Your task to perform on an android device: Open Google Maps and go to "Timeline" Image 0: 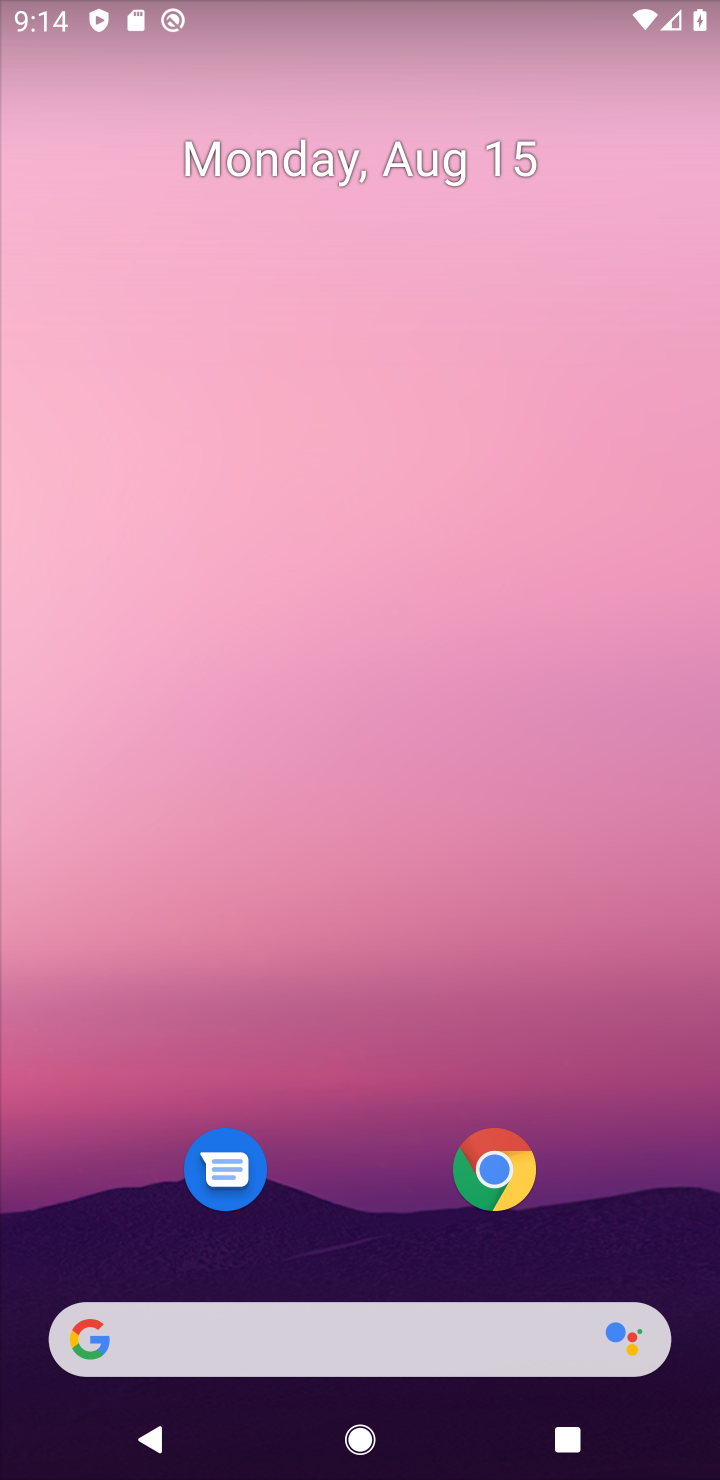
Step 0: drag from (336, 697) to (355, 141)
Your task to perform on an android device: Open Google Maps and go to "Timeline" Image 1: 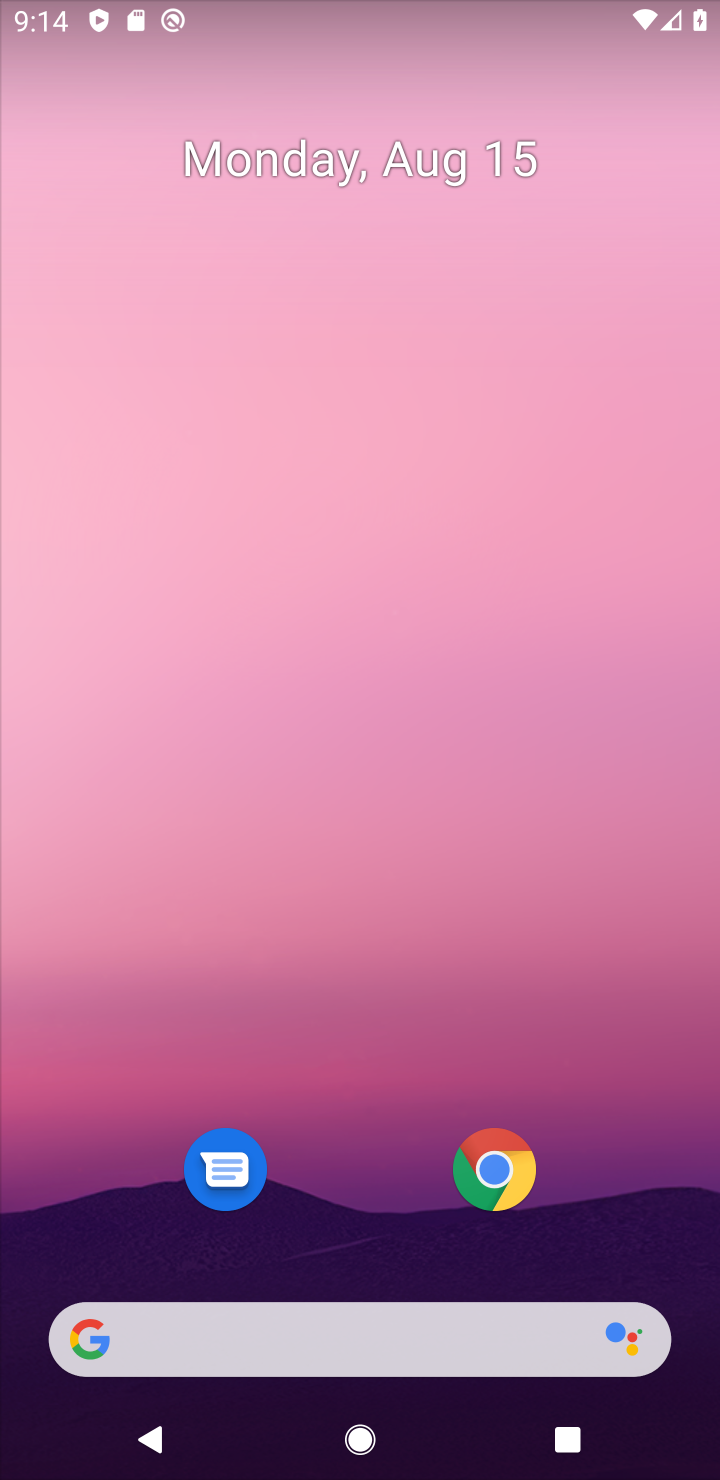
Step 1: drag from (352, 1094) to (408, 3)
Your task to perform on an android device: Open Google Maps and go to "Timeline" Image 2: 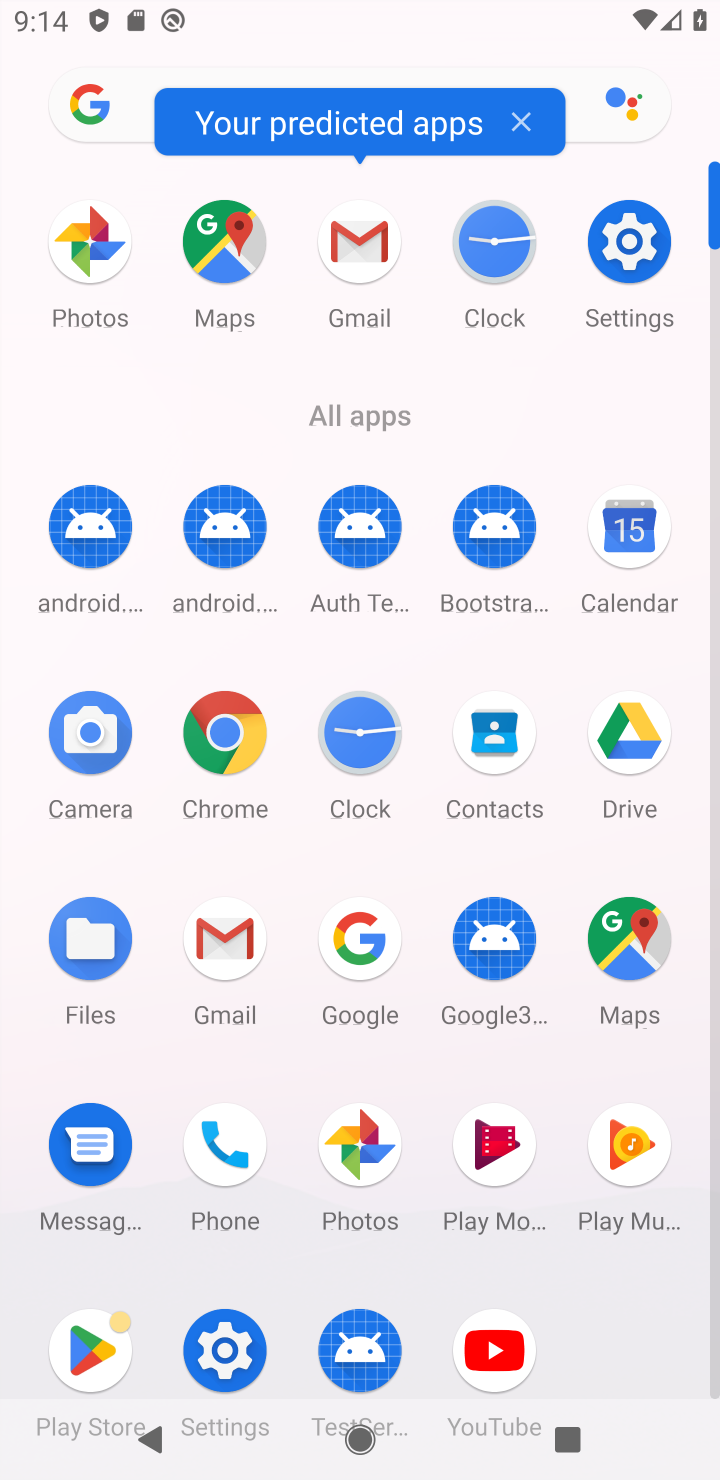
Step 2: click (633, 928)
Your task to perform on an android device: Open Google Maps and go to "Timeline" Image 3: 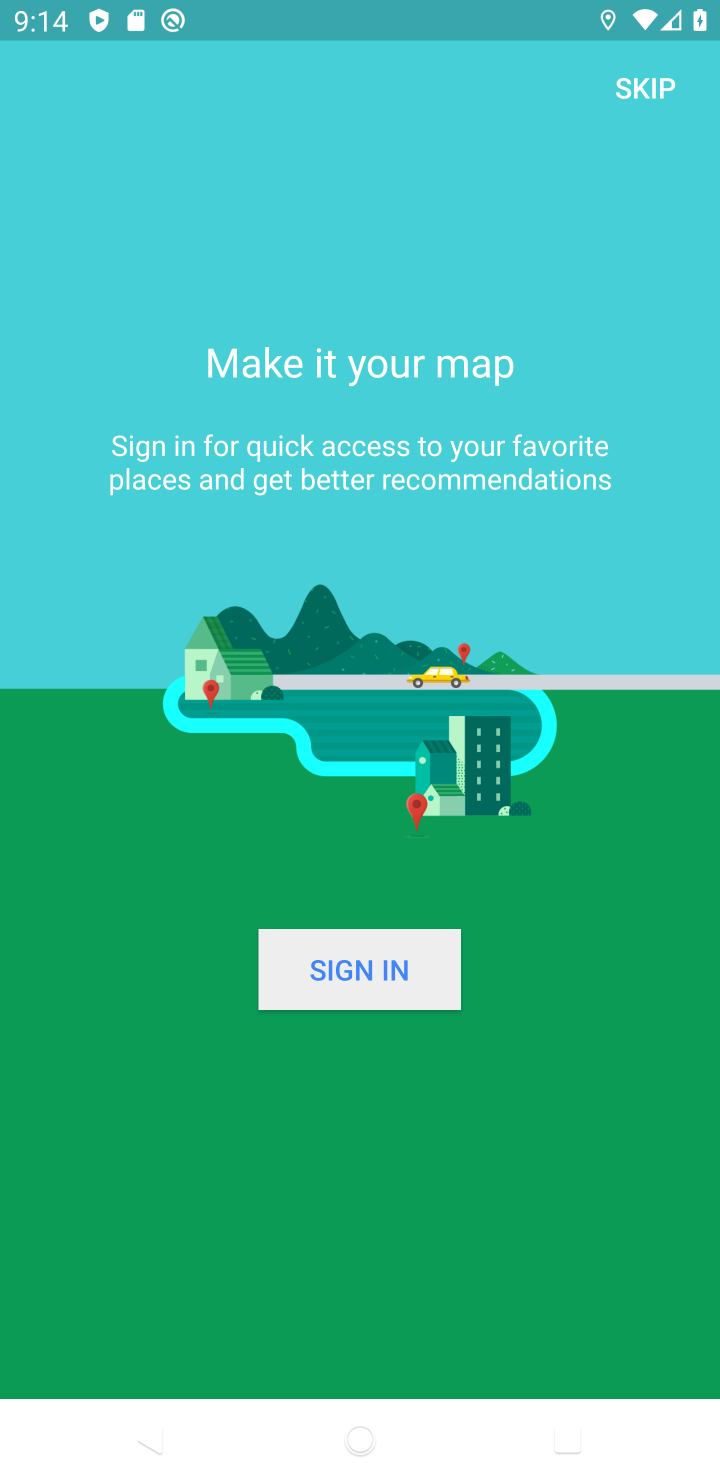
Step 3: click (655, 88)
Your task to perform on an android device: Open Google Maps and go to "Timeline" Image 4: 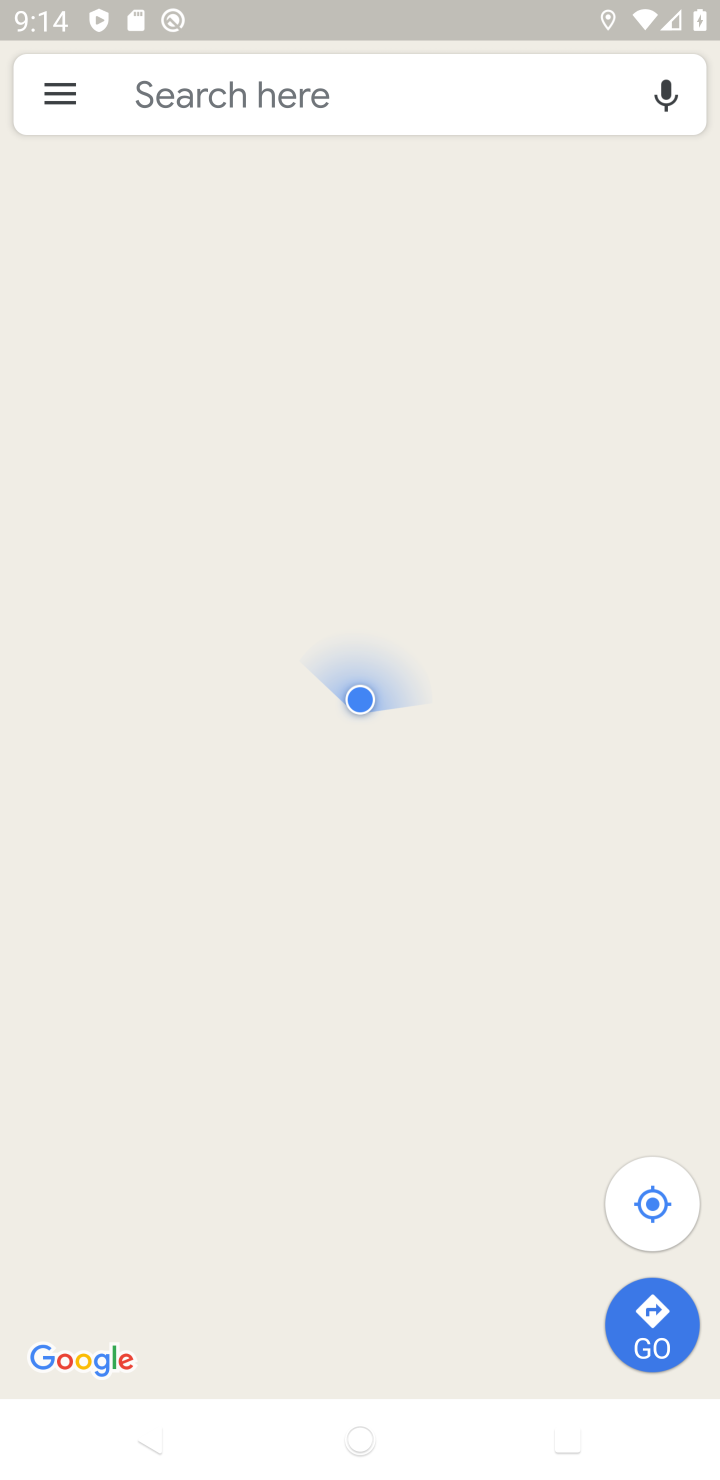
Step 4: click (64, 80)
Your task to perform on an android device: Open Google Maps and go to "Timeline" Image 5: 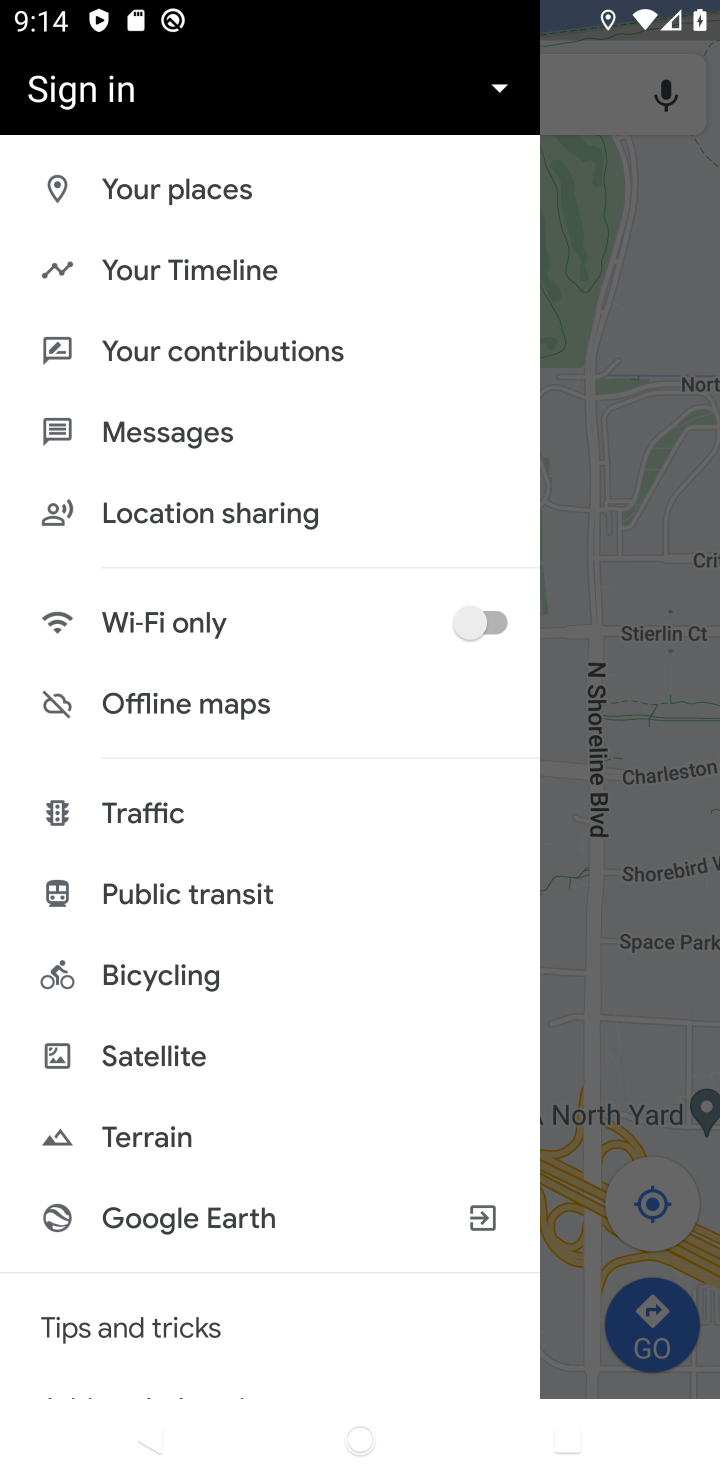
Step 5: click (196, 279)
Your task to perform on an android device: Open Google Maps and go to "Timeline" Image 6: 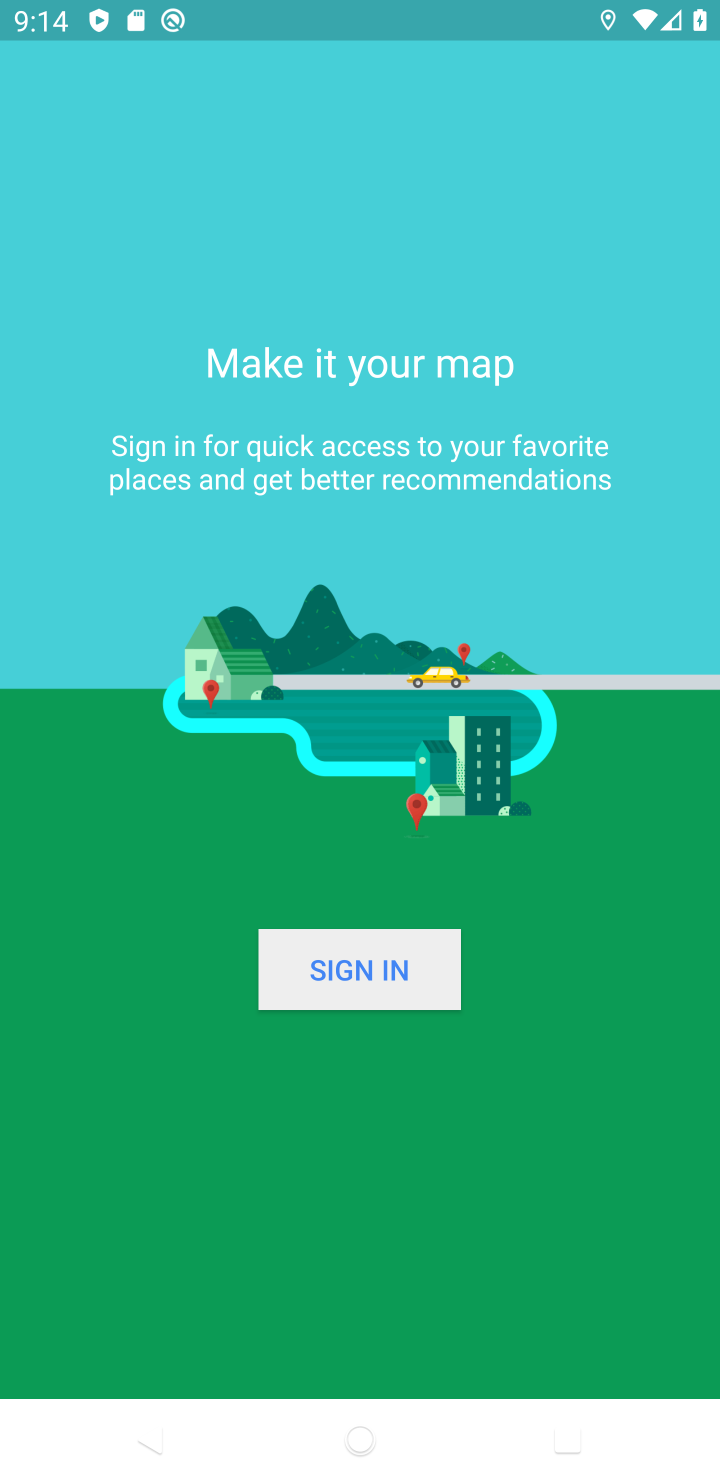
Step 6: click (387, 979)
Your task to perform on an android device: Open Google Maps and go to "Timeline" Image 7: 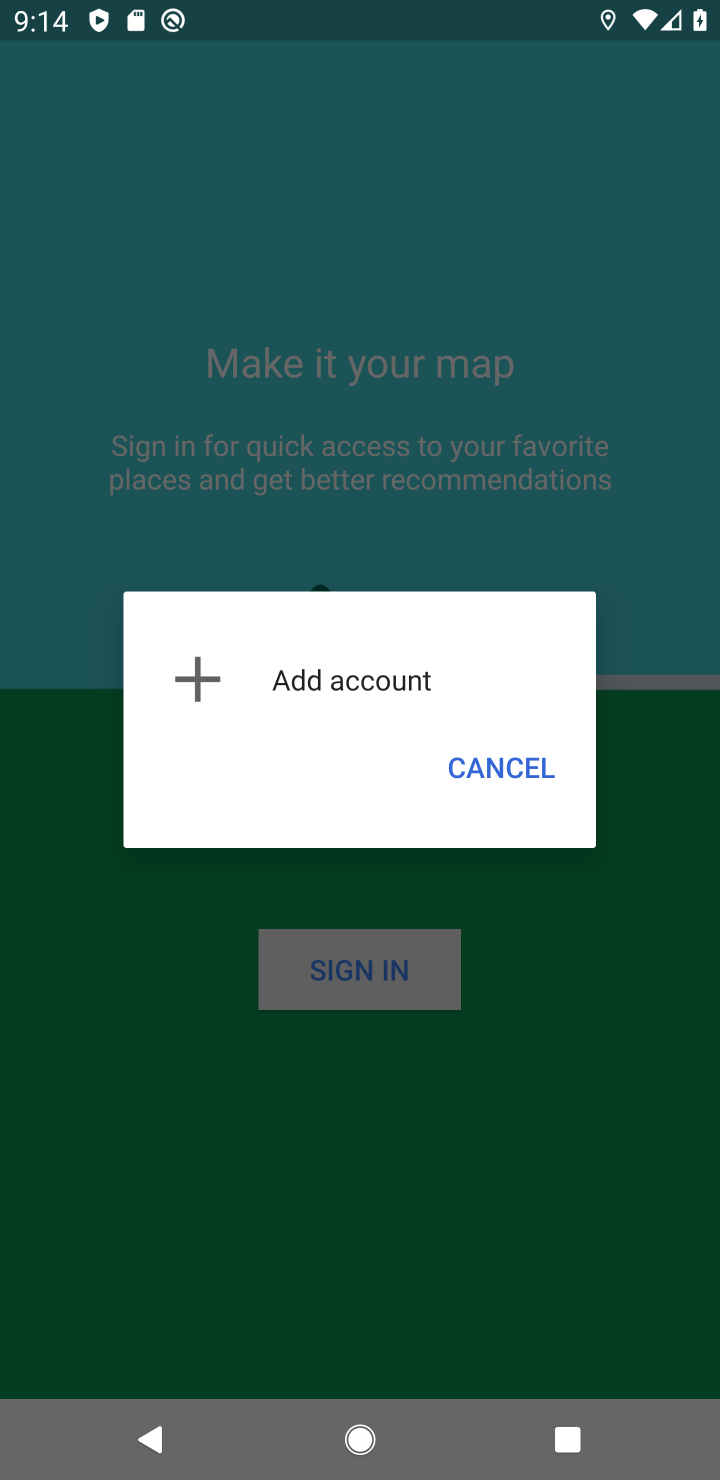
Step 7: task complete